Your task to perform on an android device: Go to CNN.com Image 0: 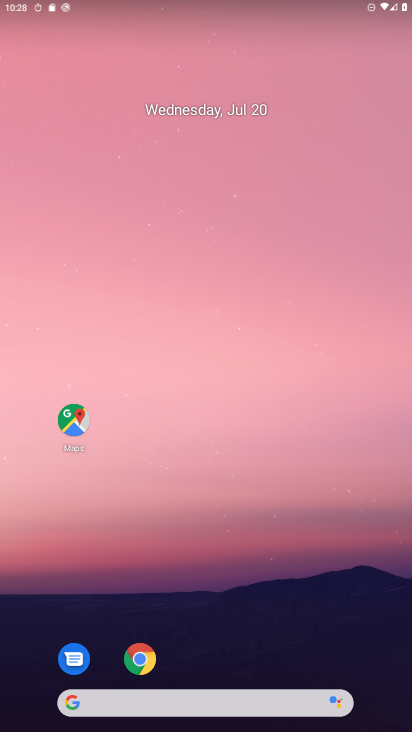
Step 0: click (143, 655)
Your task to perform on an android device: Go to CNN.com Image 1: 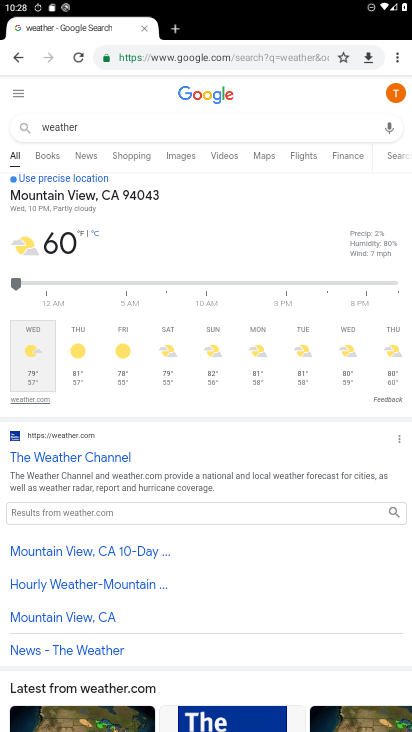
Step 1: click (151, 54)
Your task to perform on an android device: Go to CNN.com Image 2: 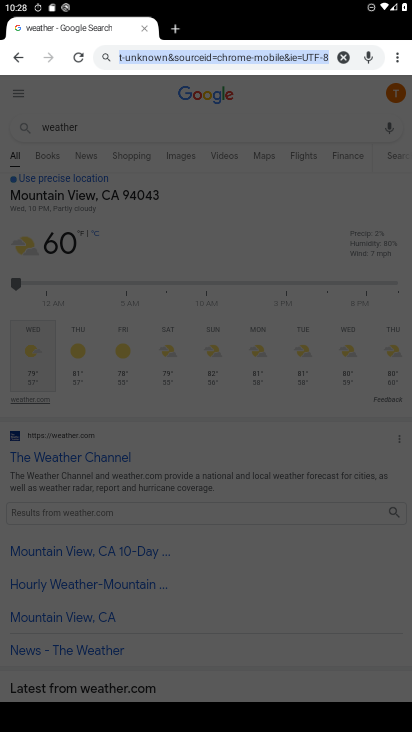
Step 2: type " cnn.com"
Your task to perform on an android device: Go to CNN.com Image 3: 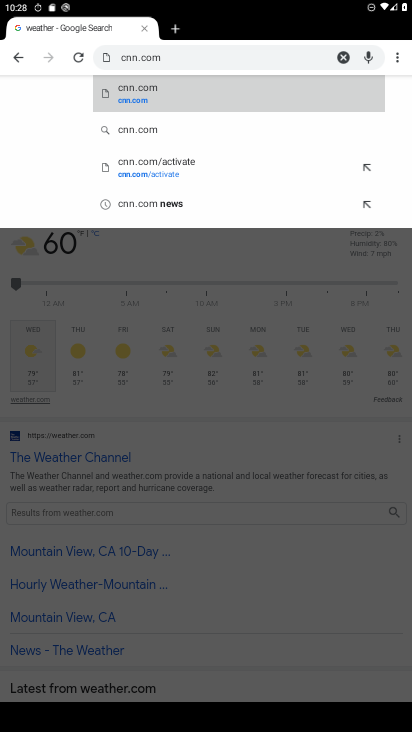
Step 3: click (120, 79)
Your task to perform on an android device: Go to CNN.com Image 4: 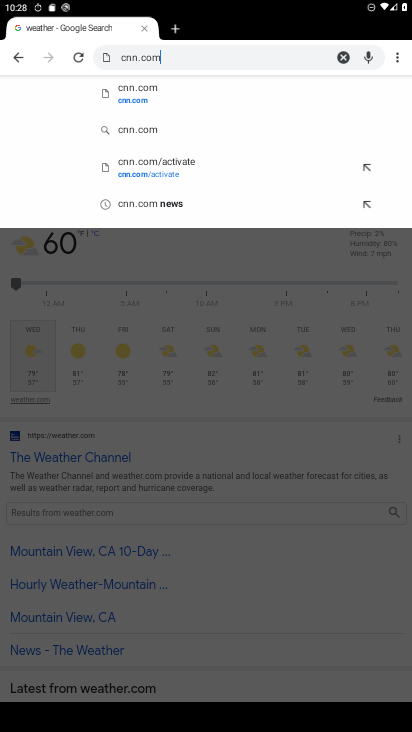
Step 4: click (143, 99)
Your task to perform on an android device: Go to CNN.com Image 5: 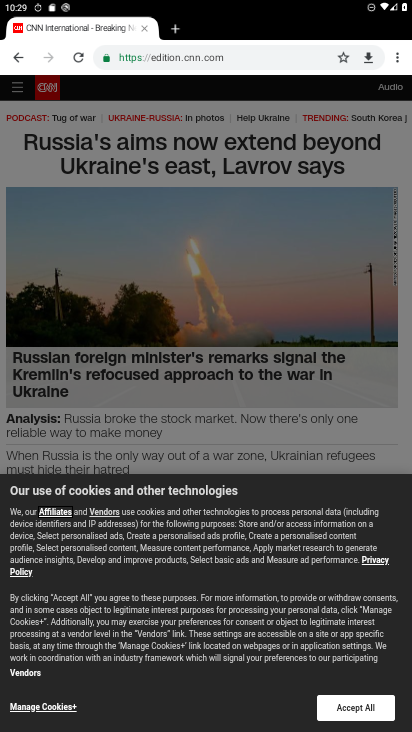
Step 5: task complete